Your task to perform on an android device: Open settings on Google Maps Image 0: 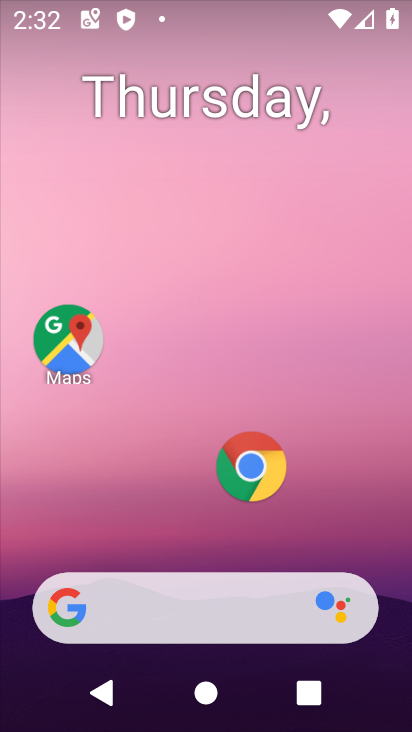
Step 0: click (82, 343)
Your task to perform on an android device: Open settings on Google Maps Image 1: 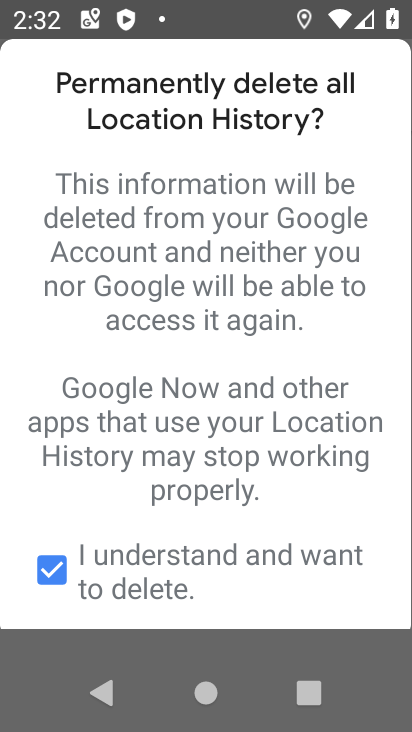
Step 1: press back button
Your task to perform on an android device: Open settings on Google Maps Image 2: 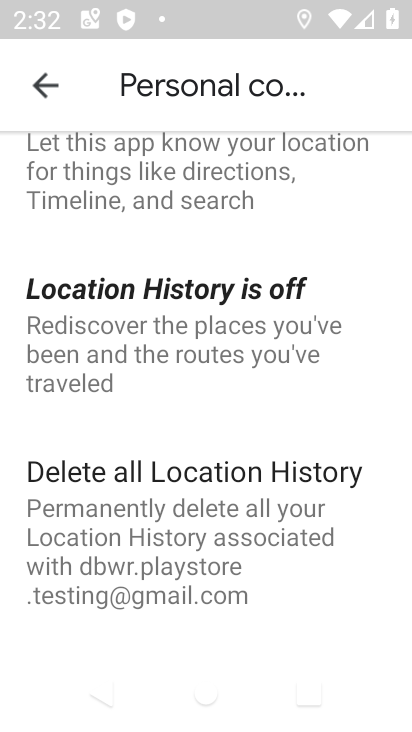
Step 2: click (42, 82)
Your task to perform on an android device: Open settings on Google Maps Image 3: 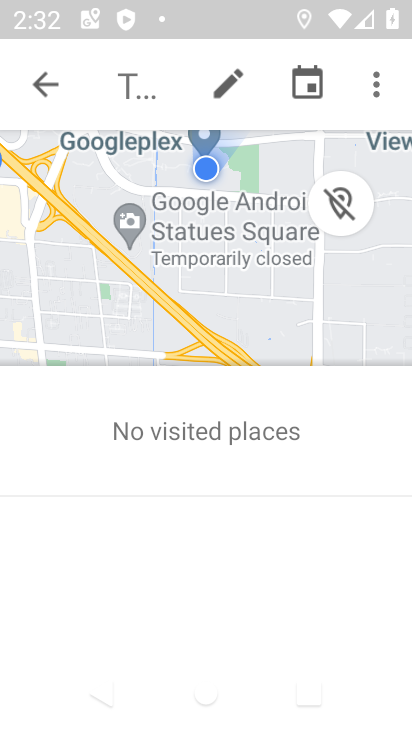
Step 3: click (42, 82)
Your task to perform on an android device: Open settings on Google Maps Image 4: 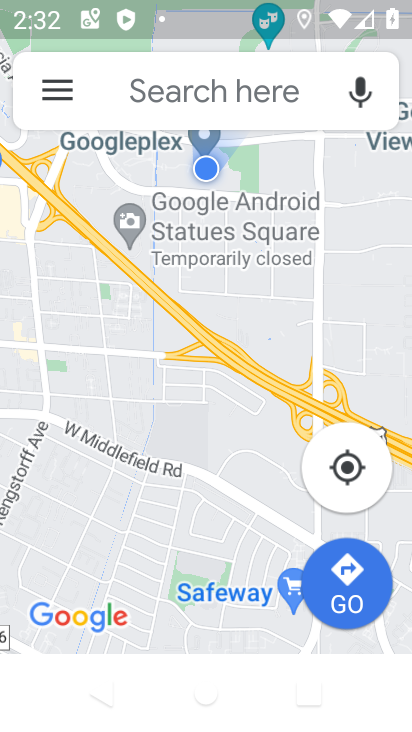
Step 4: click (59, 105)
Your task to perform on an android device: Open settings on Google Maps Image 5: 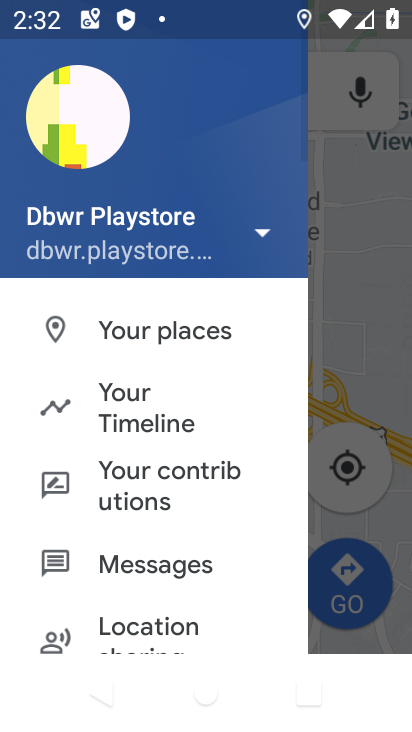
Step 5: drag from (176, 626) to (190, 110)
Your task to perform on an android device: Open settings on Google Maps Image 6: 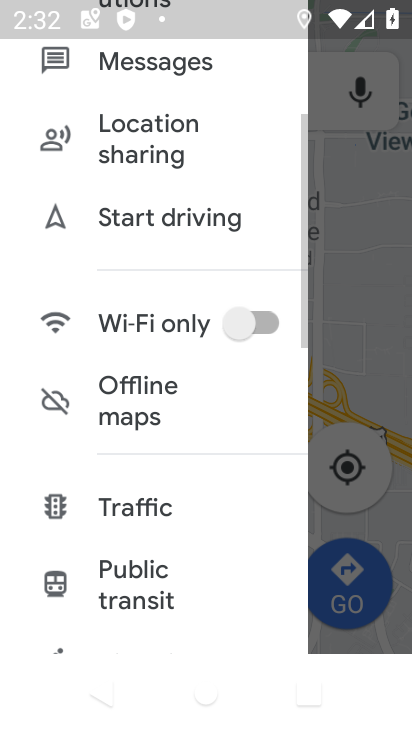
Step 6: drag from (164, 498) to (164, 240)
Your task to perform on an android device: Open settings on Google Maps Image 7: 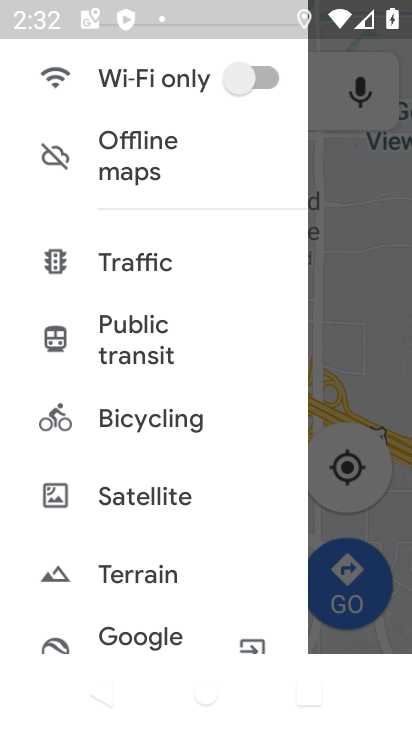
Step 7: drag from (166, 626) to (169, 303)
Your task to perform on an android device: Open settings on Google Maps Image 8: 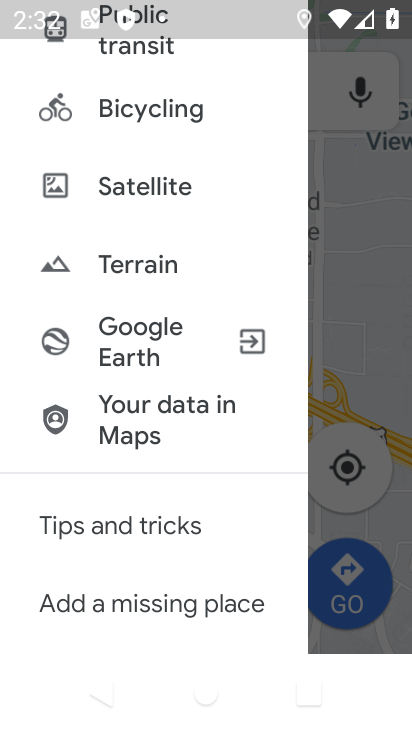
Step 8: drag from (166, 592) to (204, 329)
Your task to perform on an android device: Open settings on Google Maps Image 9: 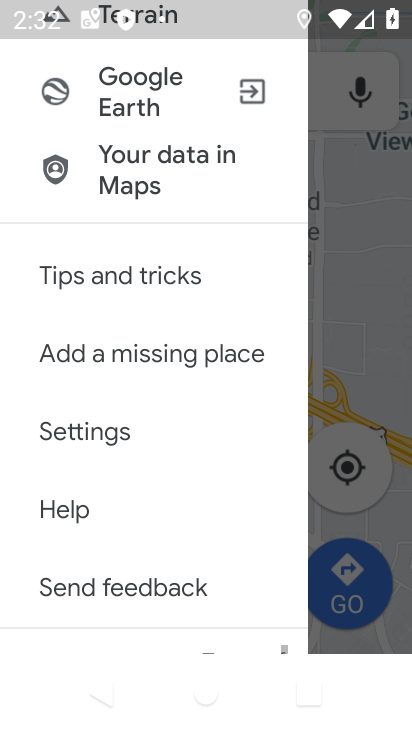
Step 9: click (122, 439)
Your task to perform on an android device: Open settings on Google Maps Image 10: 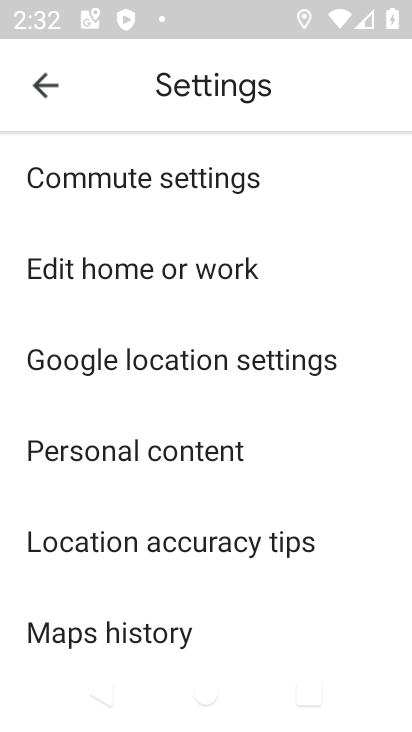
Step 10: task complete